Your task to perform on an android device: Clear the cart on ebay.com. Image 0: 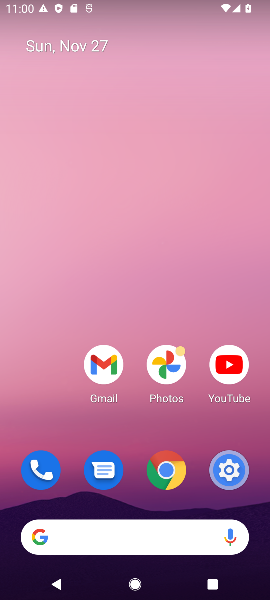
Step 0: click (166, 547)
Your task to perform on an android device: Clear the cart on ebay.com. Image 1: 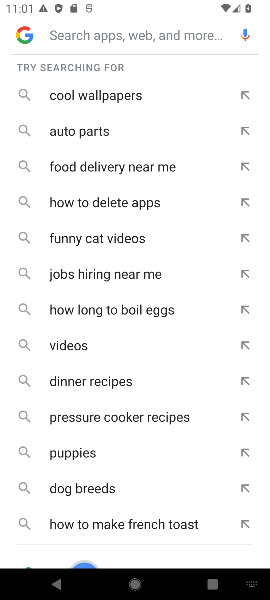
Step 1: task complete